Your task to perform on an android device: Go to calendar. Show me events next week Image 0: 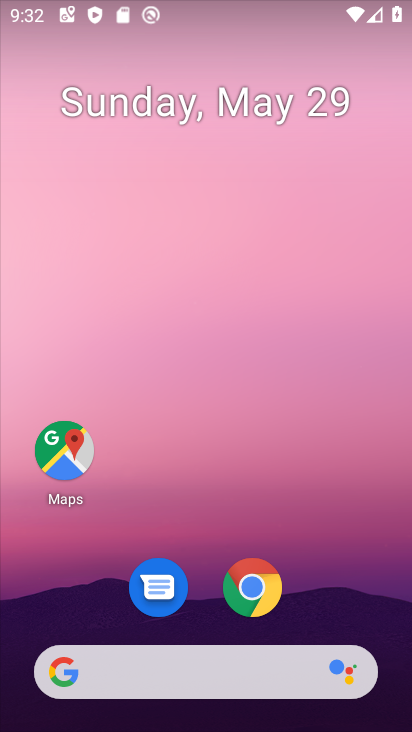
Step 0: drag from (211, 468) to (268, 46)
Your task to perform on an android device: Go to calendar. Show me events next week Image 1: 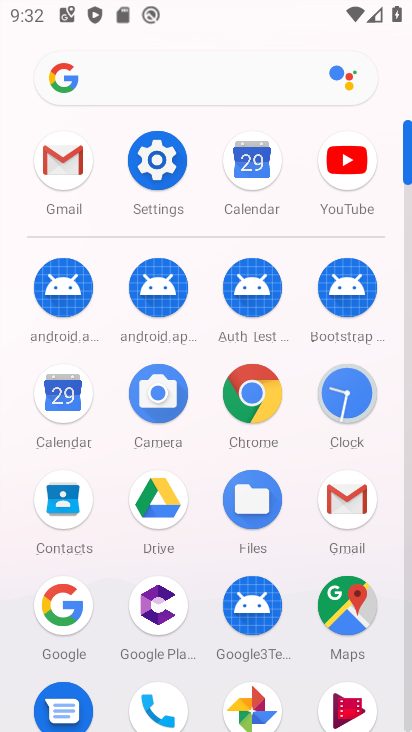
Step 1: click (72, 401)
Your task to perform on an android device: Go to calendar. Show me events next week Image 2: 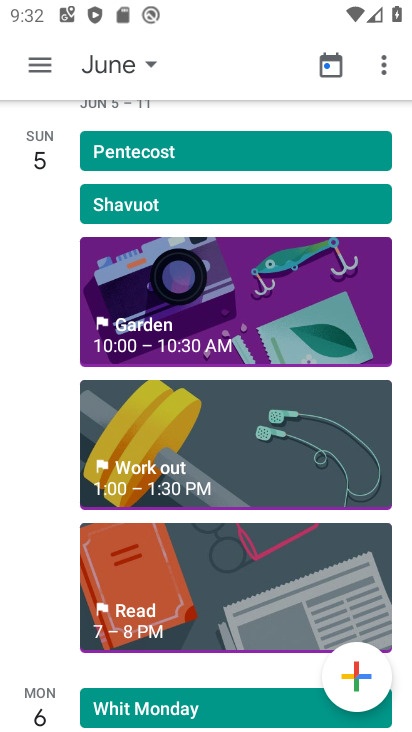
Step 2: click (117, 64)
Your task to perform on an android device: Go to calendar. Show me events next week Image 3: 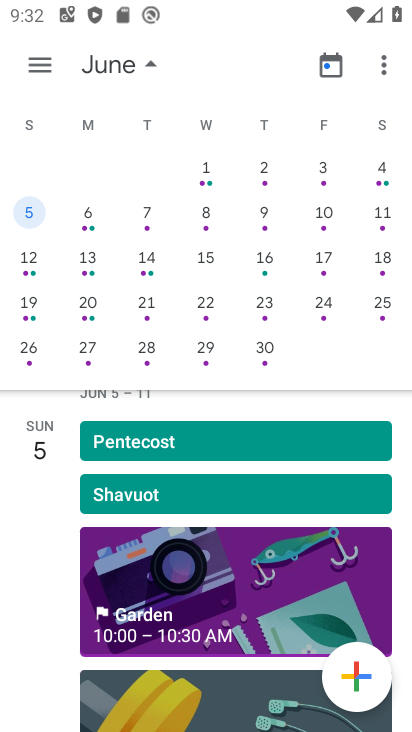
Step 3: drag from (218, 485) to (194, 624)
Your task to perform on an android device: Go to calendar. Show me events next week Image 4: 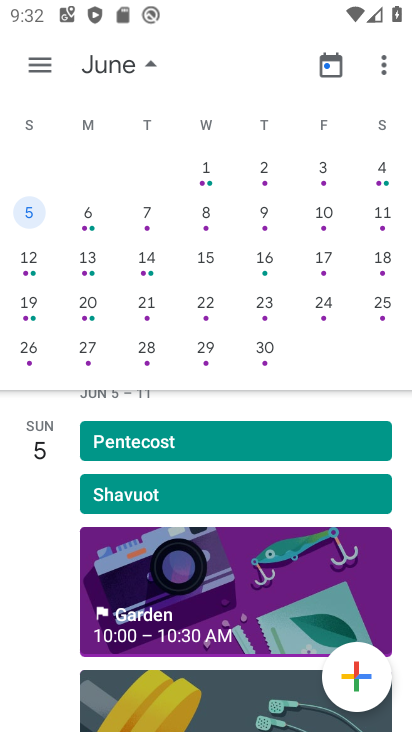
Step 4: drag from (25, 256) to (374, 224)
Your task to perform on an android device: Go to calendar. Show me events next week Image 5: 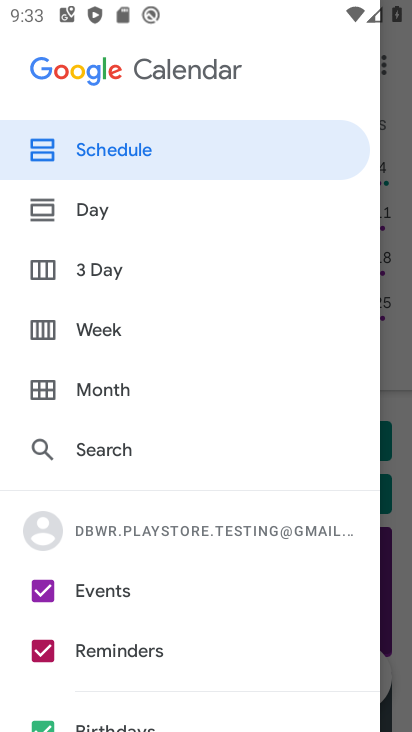
Step 5: drag from (126, 623) to (240, 93)
Your task to perform on an android device: Go to calendar. Show me events next week Image 6: 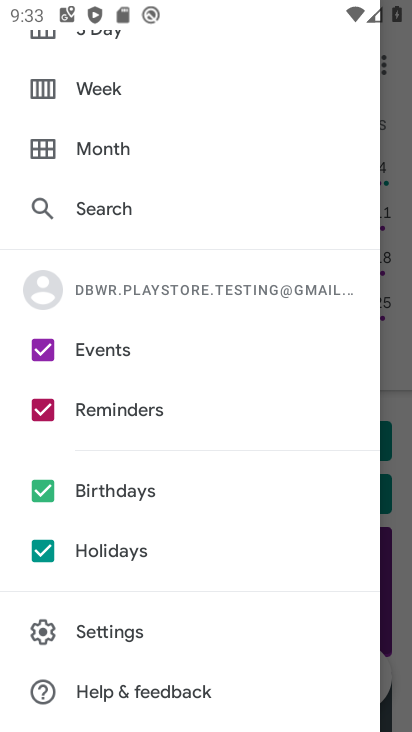
Step 6: drag from (99, 175) to (185, 626)
Your task to perform on an android device: Go to calendar. Show me events next week Image 7: 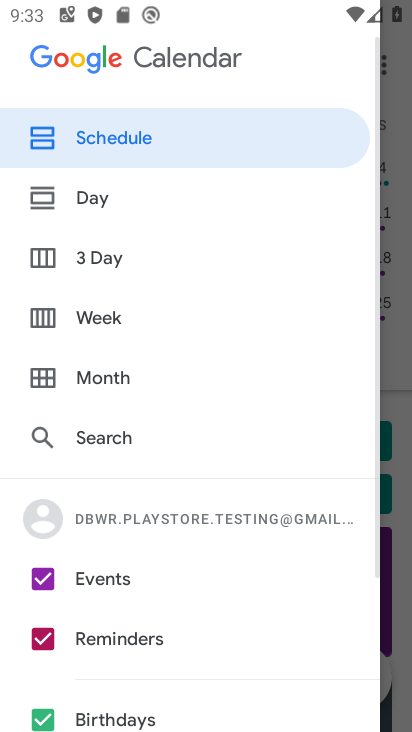
Step 7: press home button
Your task to perform on an android device: Go to calendar. Show me events next week Image 8: 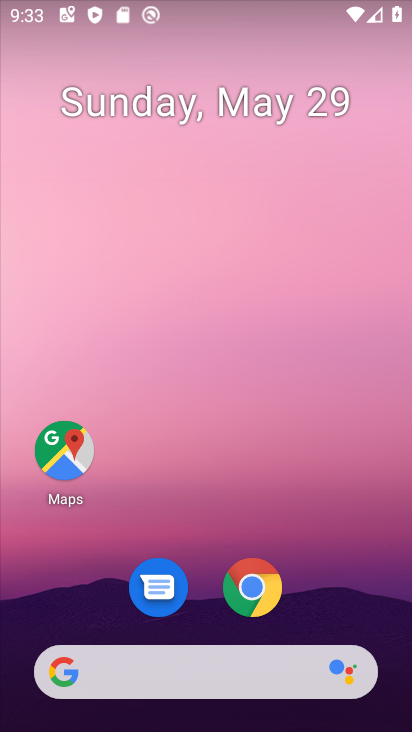
Step 8: drag from (206, 504) to (264, 4)
Your task to perform on an android device: Go to calendar. Show me events next week Image 9: 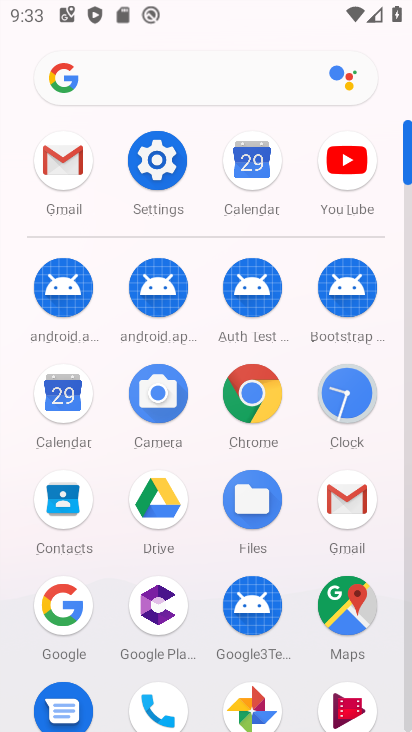
Step 9: click (63, 401)
Your task to perform on an android device: Go to calendar. Show me events next week Image 10: 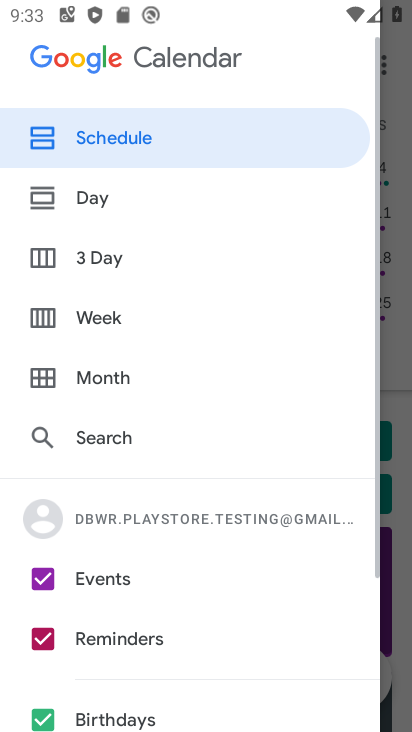
Step 10: click (132, 142)
Your task to perform on an android device: Go to calendar. Show me events next week Image 11: 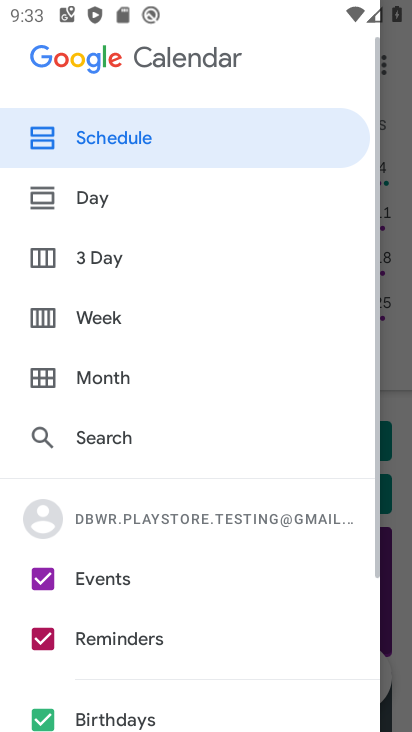
Step 11: task complete